Your task to perform on an android device: Open notification settings Image 0: 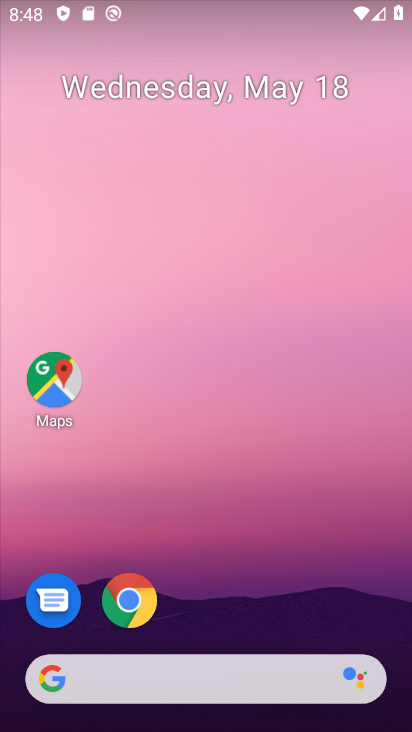
Step 0: drag from (28, 640) to (308, 97)
Your task to perform on an android device: Open notification settings Image 1: 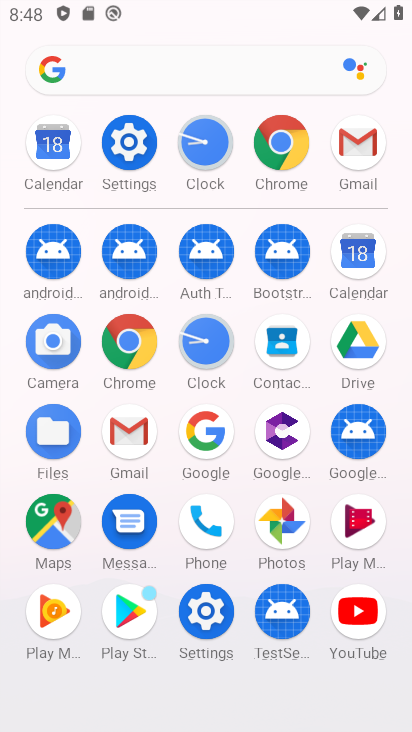
Step 1: click (140, 151)
Your task to perform on an android device: Open notification settings Image 2: 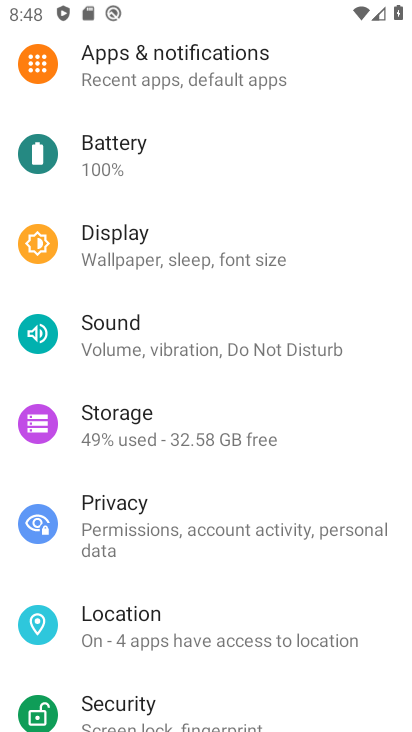
Step 2: click (154, 84)
Your task to perform on an android device: Open notification settings Image 3: 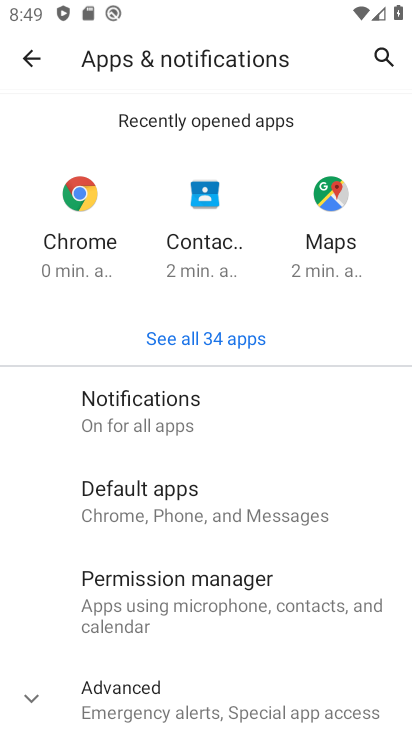
Step 3: click (126, 394)
Your task to perform on an android device: Open notification settings Image 4: 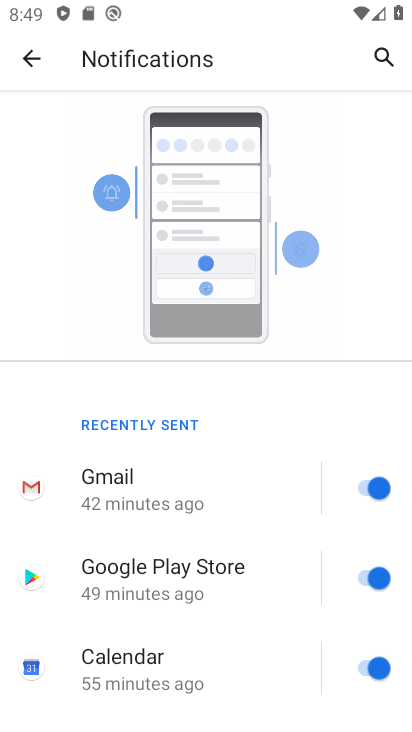
Step 4: task complete